Your task to perform on an android device: turn on data saver in the chrome app Image 0: 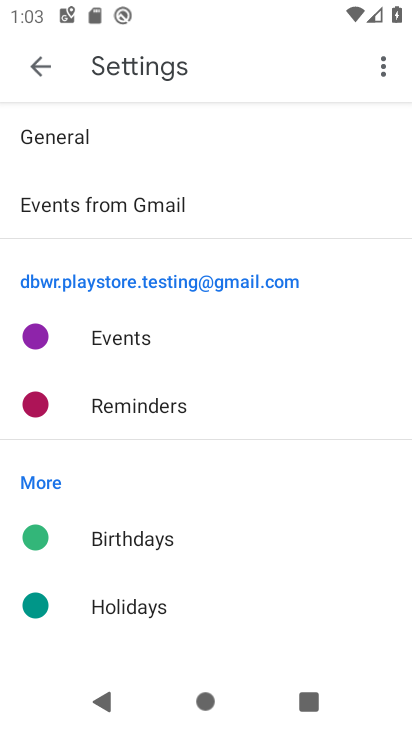
Step 0: press home button
Your task to perform on an android device: turn on data saver in the chrome app Image 1: 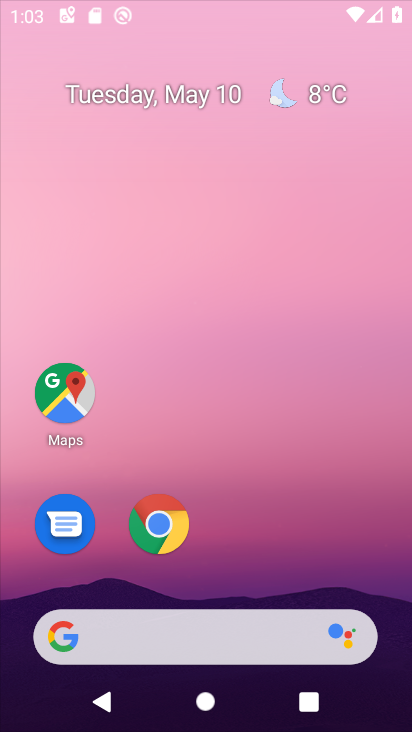
Step 1: press home button
Your task to perform on an android device: turn on data saver in the chrome app Image 2: 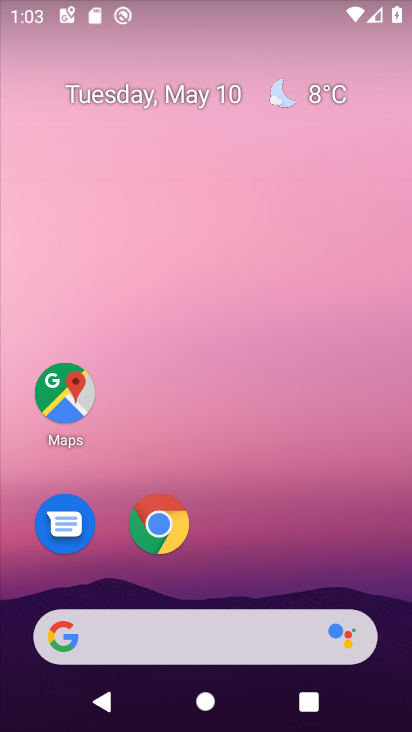
Step 2: click (161, 536)
Your task to perform on an android device: turn on data saver in the chrome app Image 3: 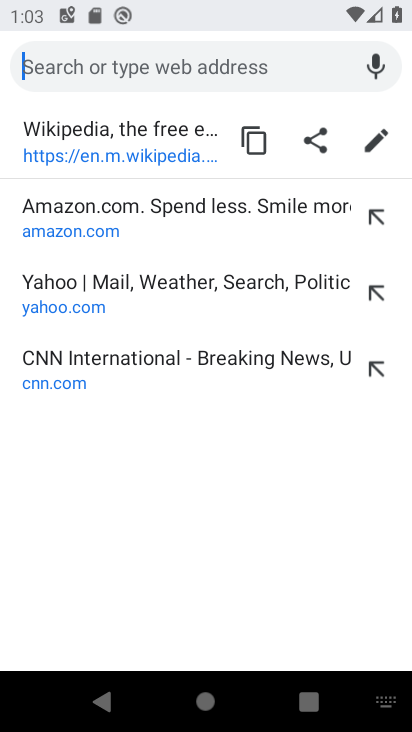
Step 3: press back button
Your task to perform on an android device: turn on data saver in the chrome app Image 4: 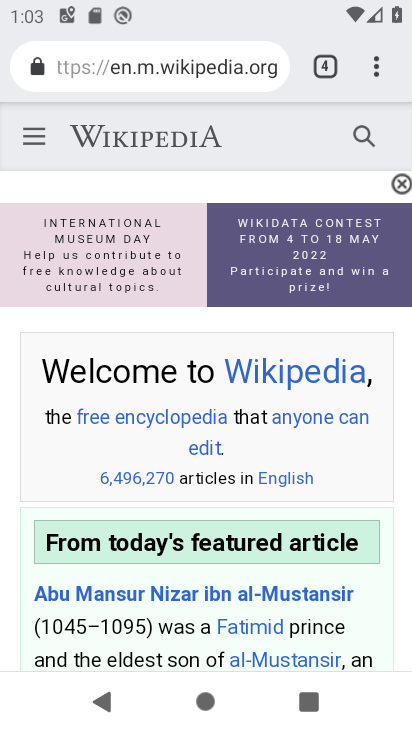
Step 4: click (366, 54)
Your task to perform on an android device: turn on data saver in the chrome app Image 5: 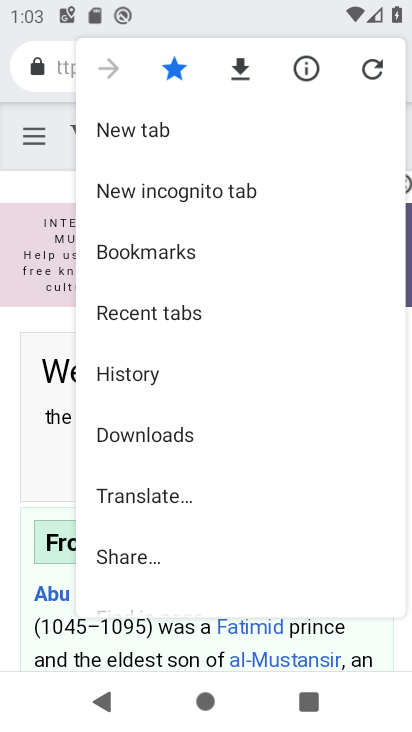
Step 5: drag from (263, 490) to (251, 150)
Your task to perform on an android device: turn on data saver in the chrome app Image 6: 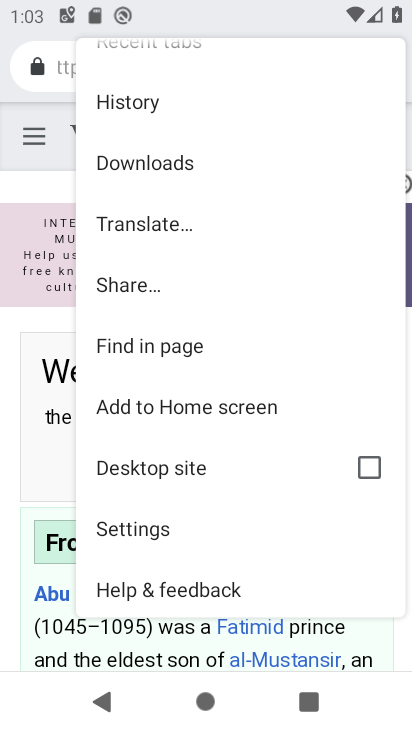
Step 6: click (160, 522)
Your task to perform on an android device: turn on data saver in the chrome app Image 7: 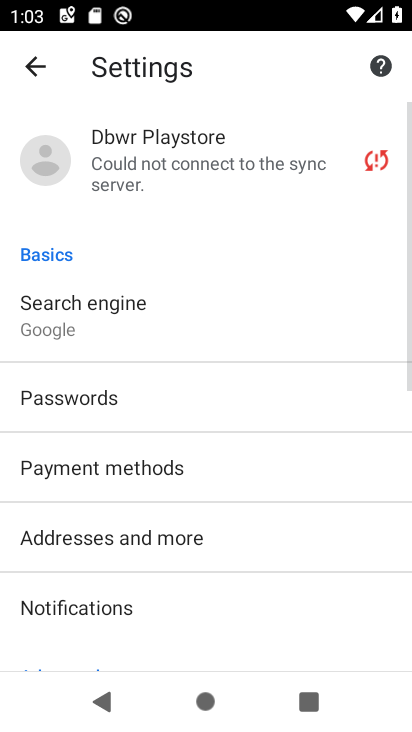
Step 7: drag from (265, 602) to (284, 176)
Your task to perform on an android device: turn on data saver in the chrome app Image 8: 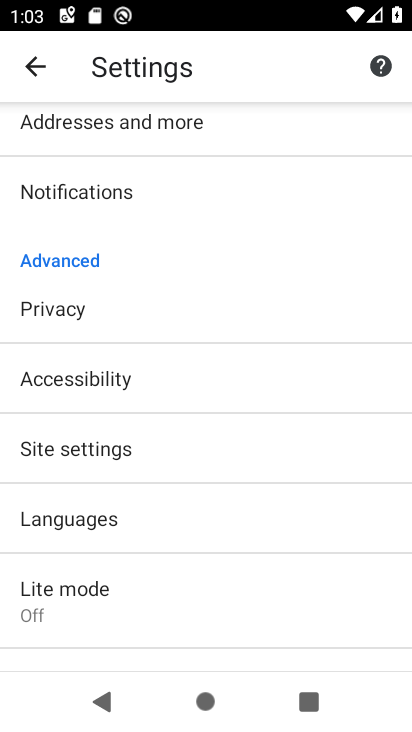
Step 8: click (154, 621)
Your task to perform on an android device: turn on data saver in the chrome app Image 9: 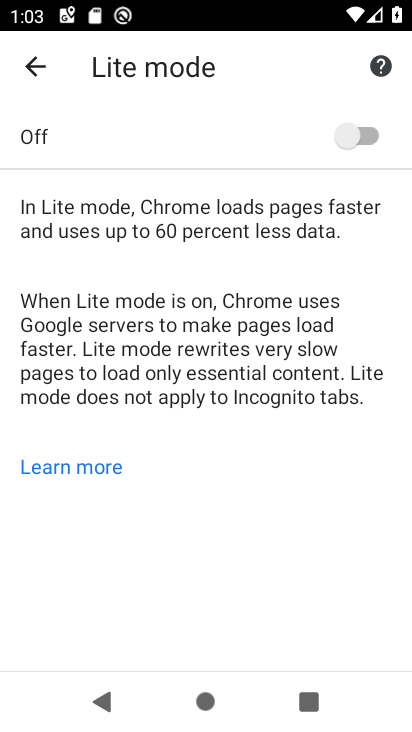
Step 9: click (364, 129)
Your task to perform on an android device: turn on data saver in the chrome app Image 10: 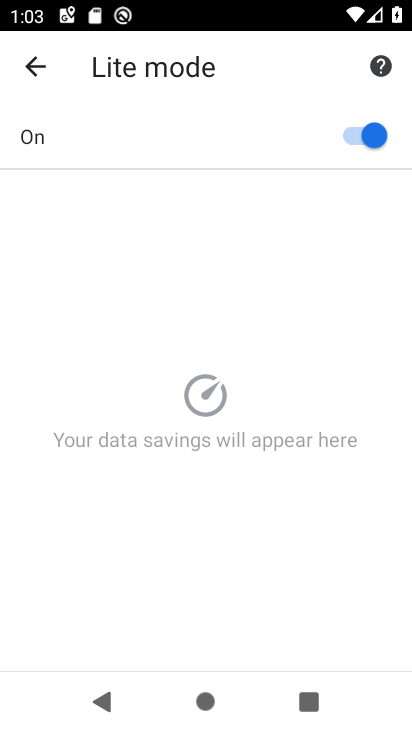
Step 10: task complete